Your task to perform on an android device: Open wifi settings Image 0: 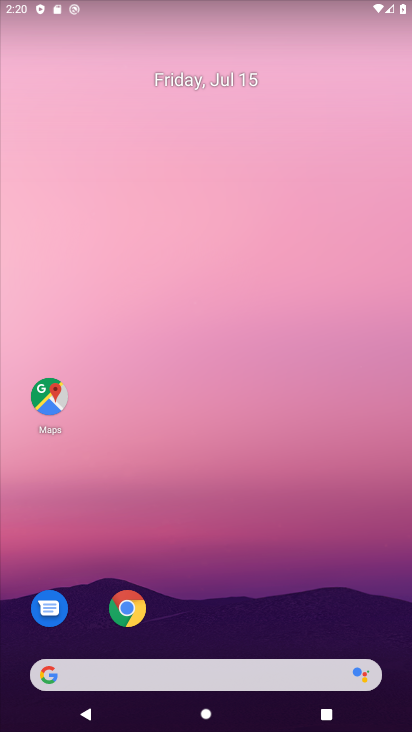
Step 0: drag from (356, 626) to (248, 15)
Your task to perform on an android device: Open wifi settings Image 1: 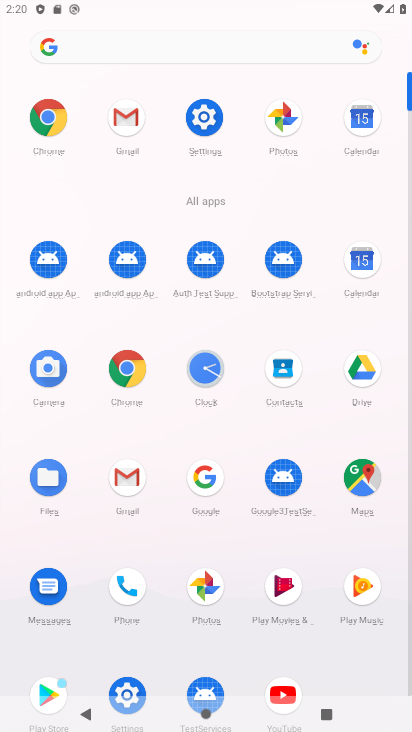
Step 1: click (212, 109)
Your task to perform on an android device: Open wifi settings Image 2: 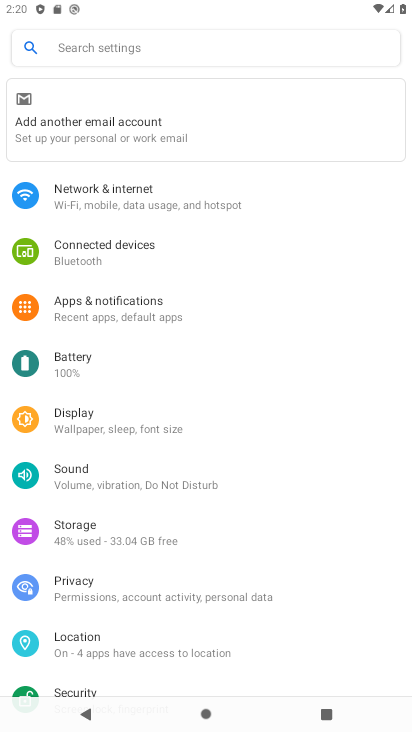
Step 2: click (229, 201)
Your task to perform on an android device: Open wifi settings Image 3: 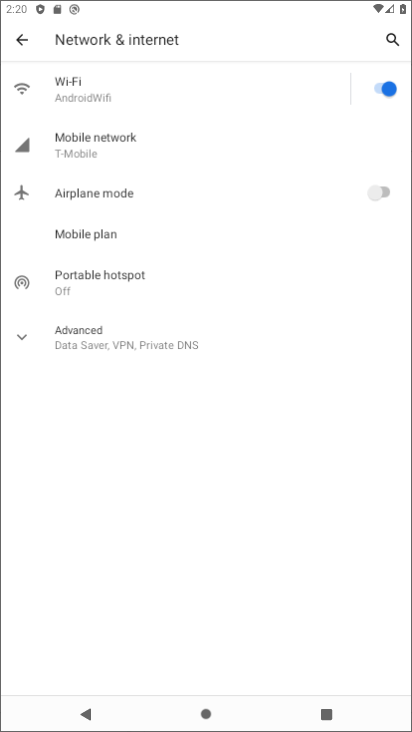
Step 3: click (135, 96)
Your task to perform on an android device: Open wifi settings Image 4: 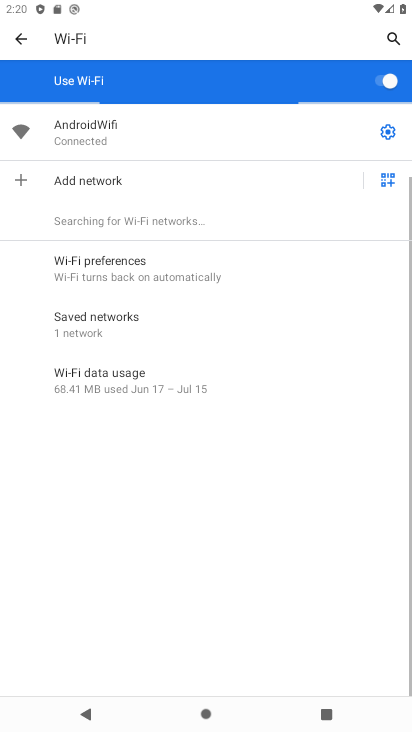
Step 4: task complete